Your task to perform on an android device: change the clock display to show seconds Image 0: 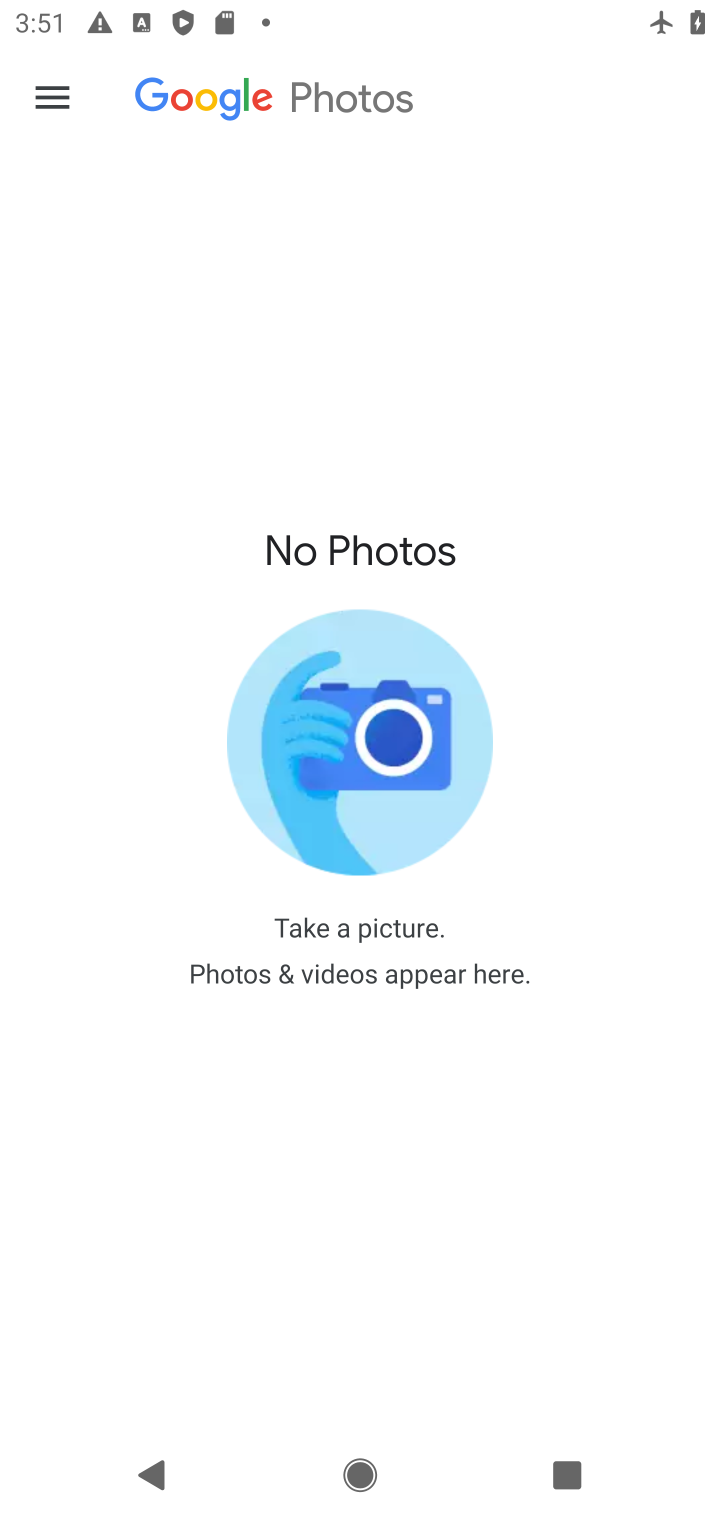
Step 0: press home button
Your task to perform on an android device: change the clock display to show seconds Image 1: 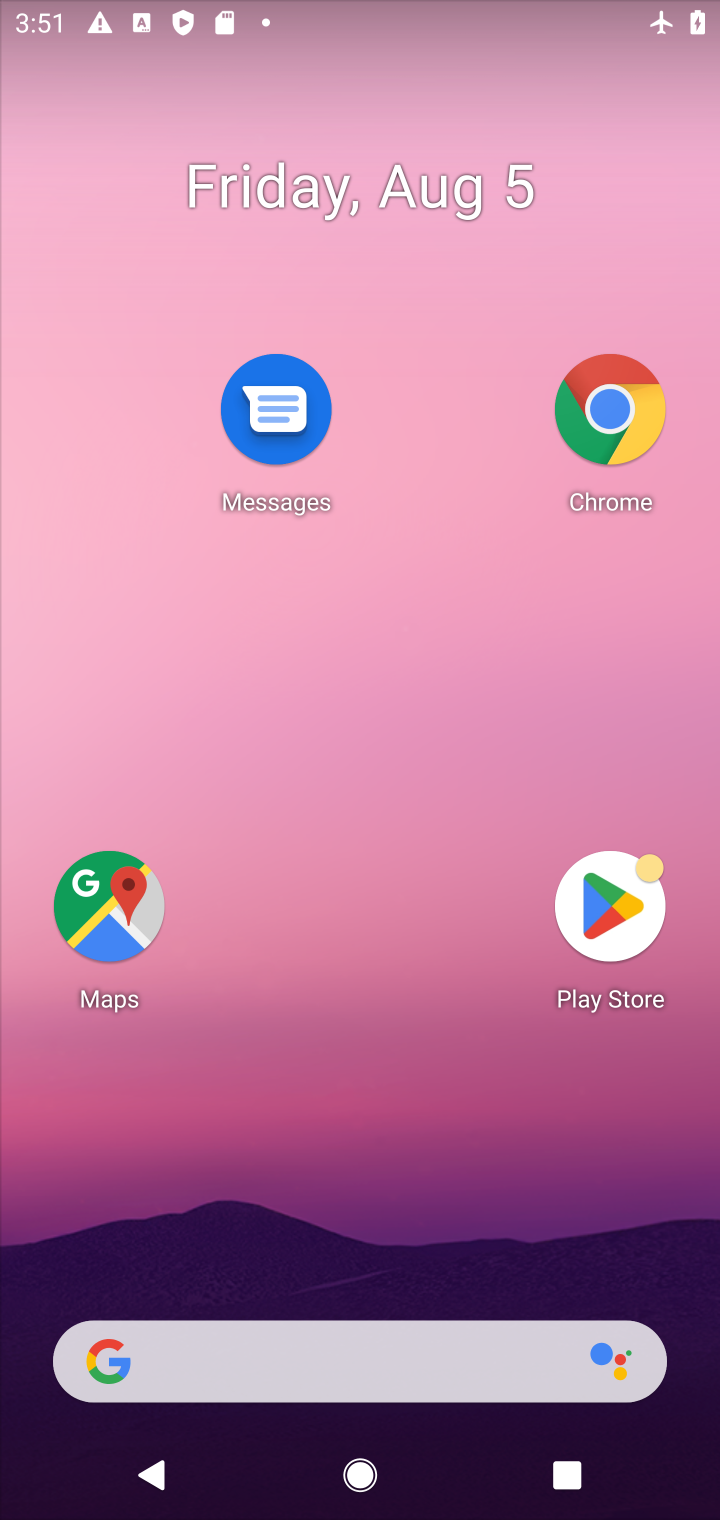
Step 1: drag from (372, 1079) to (418, 433)
Your task to perform on an android device: change the clock display to show seconds Image 2: 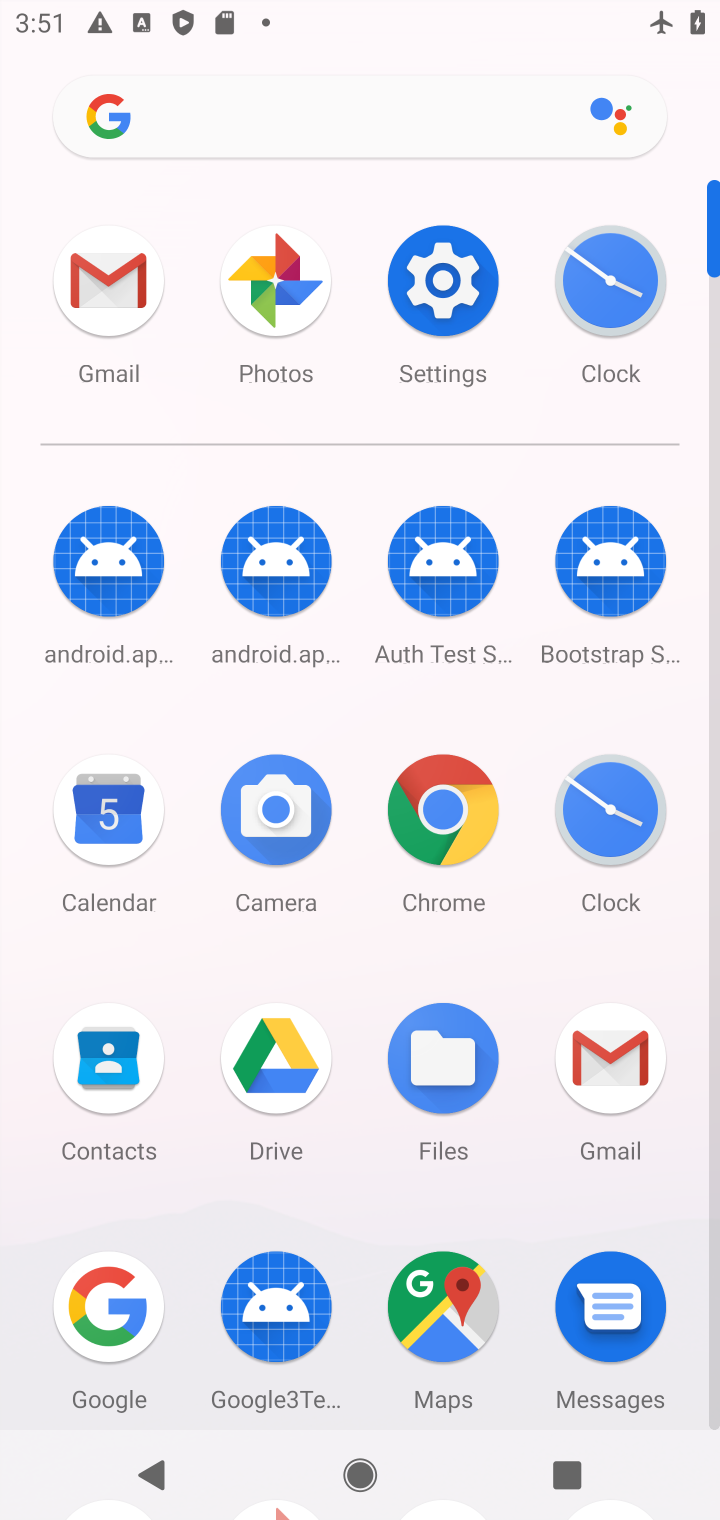
Step 2: click (616, 297)
Your task to perform on an android device: change the clock display to show seconds Image 3: 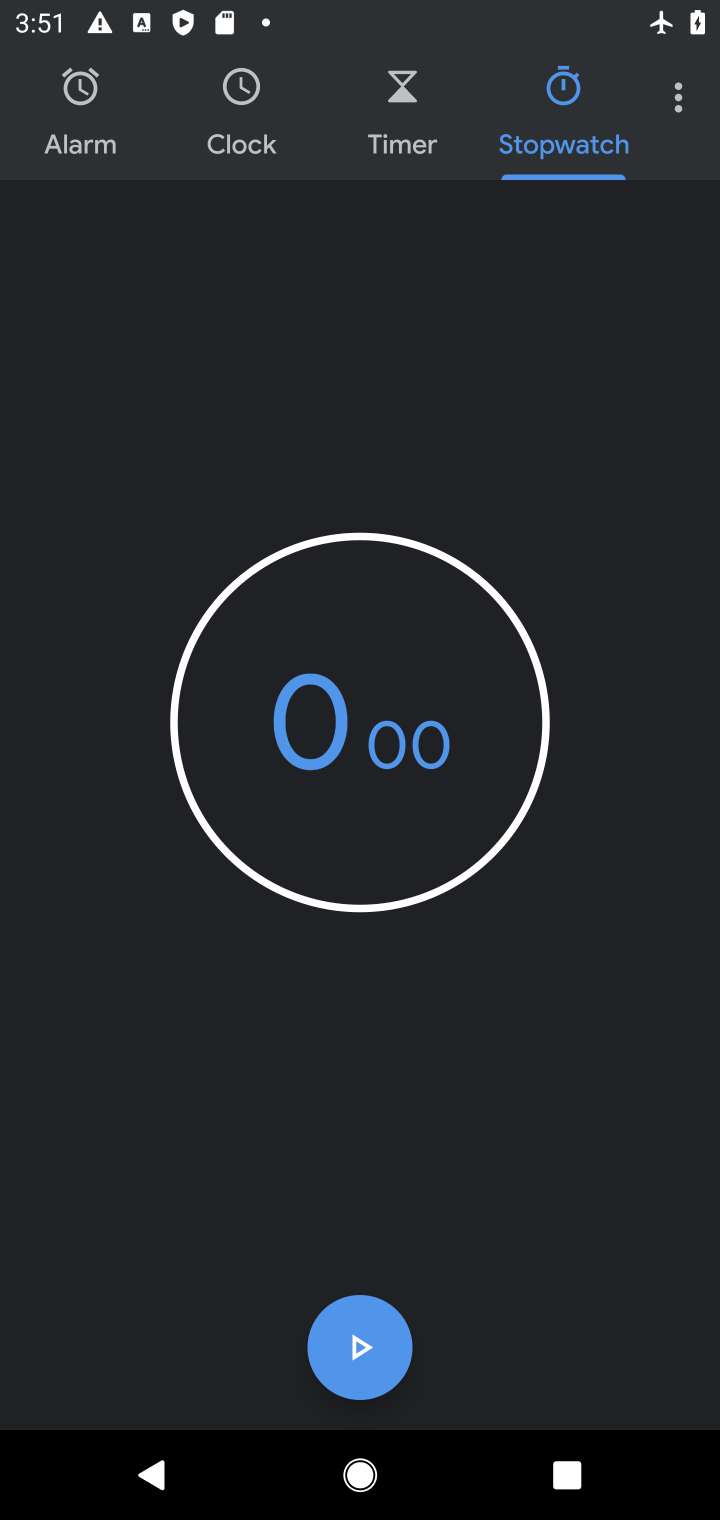
Step 3: click (677, 130)
Your task to perform on an android device: change the clock display to show seconds Image 4: 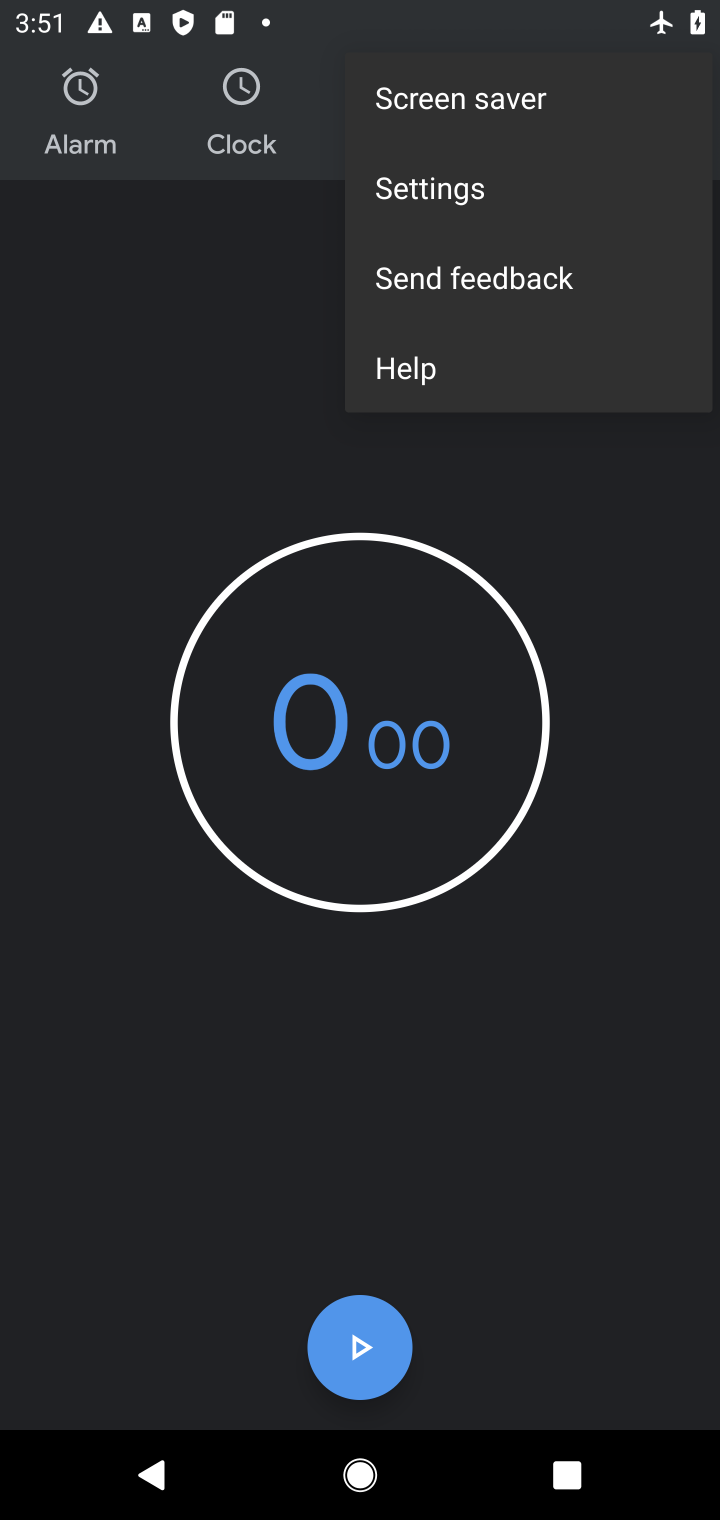
Step 4: click (547, 191)
Your task to perform on an android device: change the clock display to show seconds Image 5: 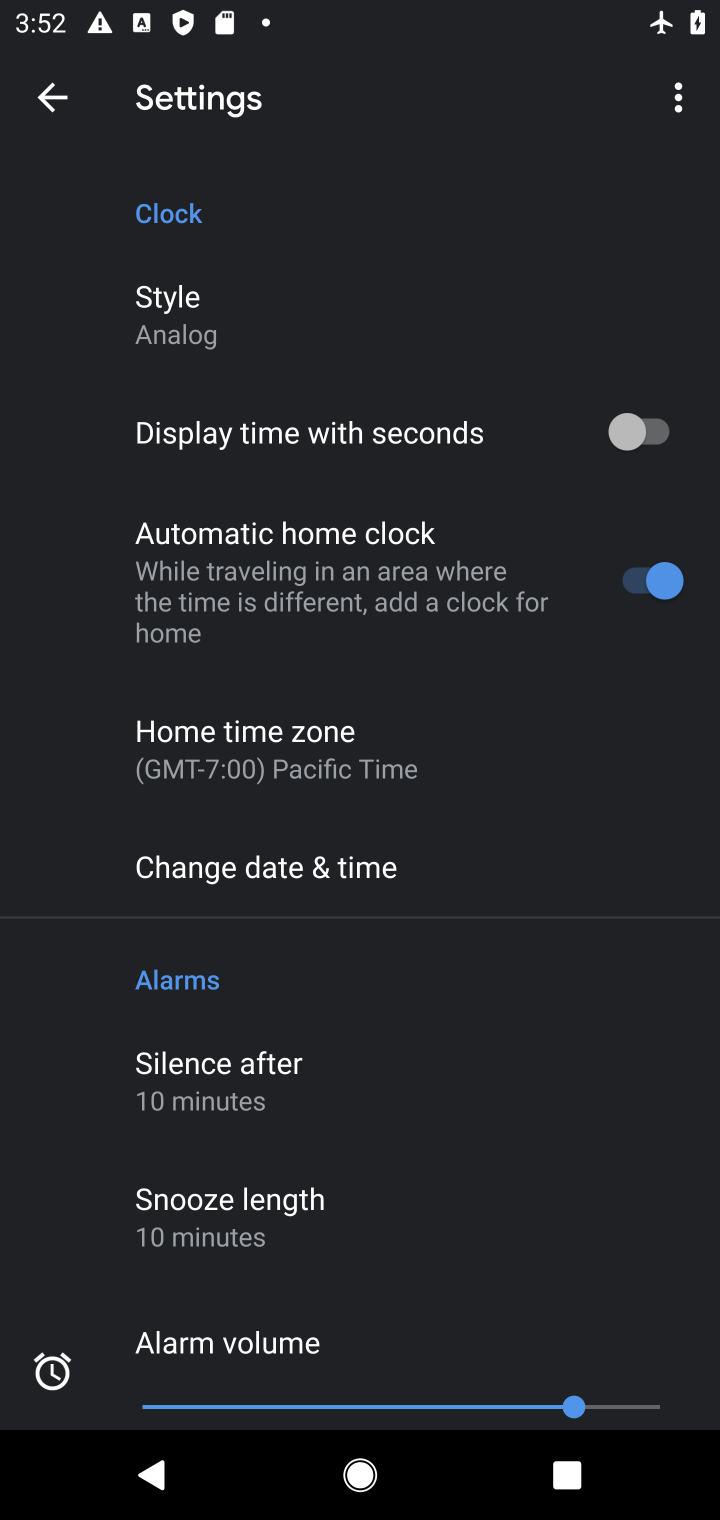
Step 5: click (644, 439)
Your task to perform on an android device: change the clock display to show seconds Image 6: 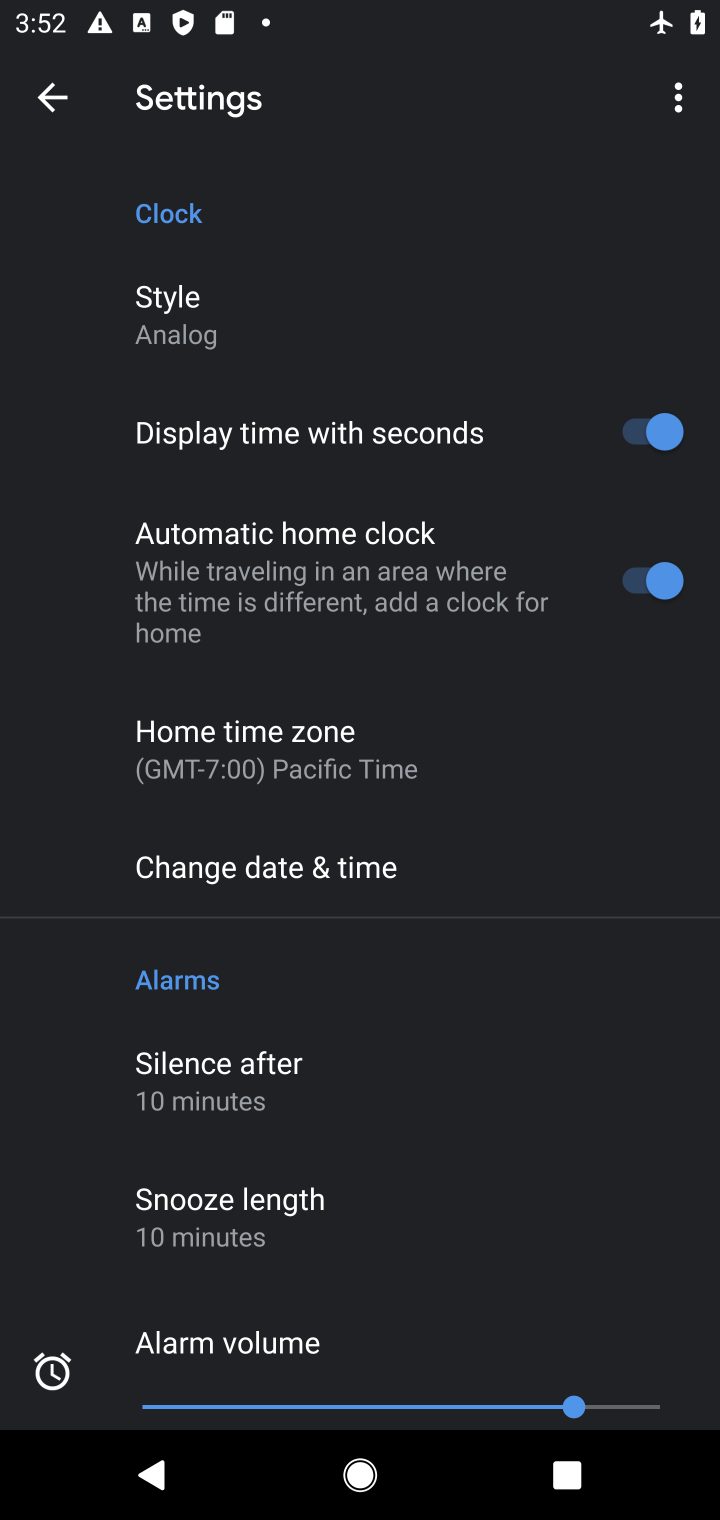
Step 6: task complete